Your task to perform on an android device: What's the weather today? Image 0: 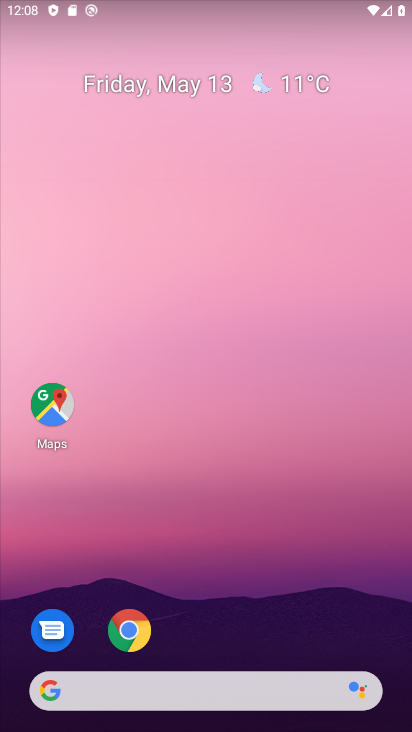
Step 0: press home button
Your task to perform on an android device: What's the weather today? Image 1: 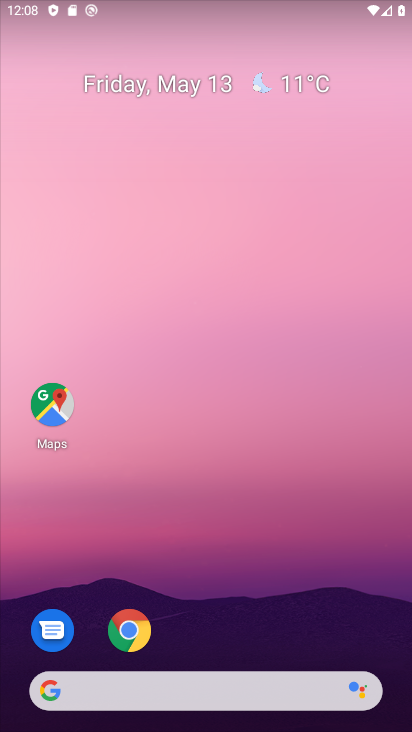
Step 1: click (157, 686)
Your task to perform on an android device: What's the weather today? Image 2: 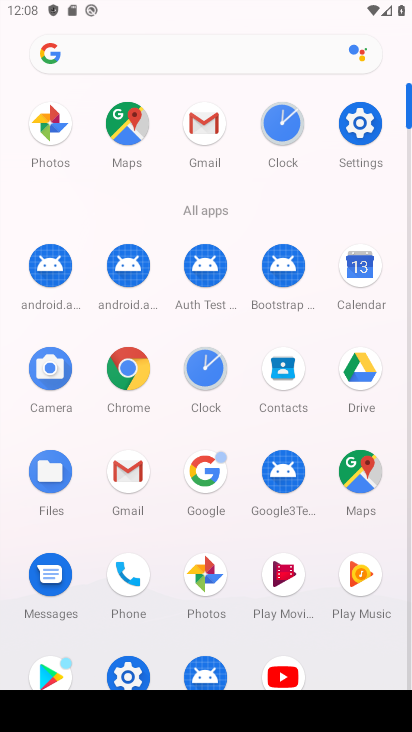
Step 2: press home button
Your task to perform on an android device: What's the weather today? Image 3: 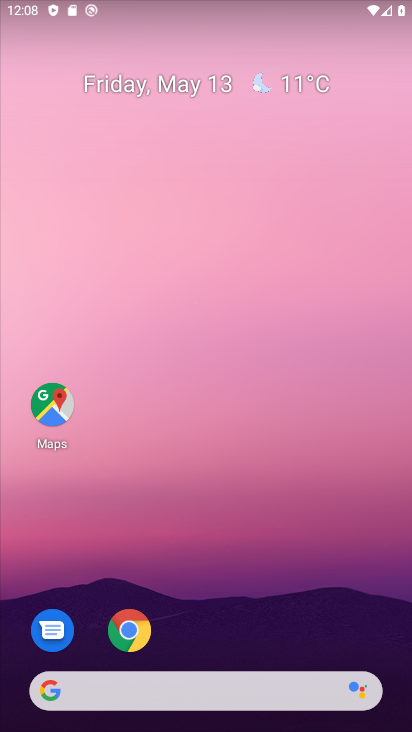
Step 3: click (161, 683)
Your task to perform on an android device: What's the weather today? Image 4: 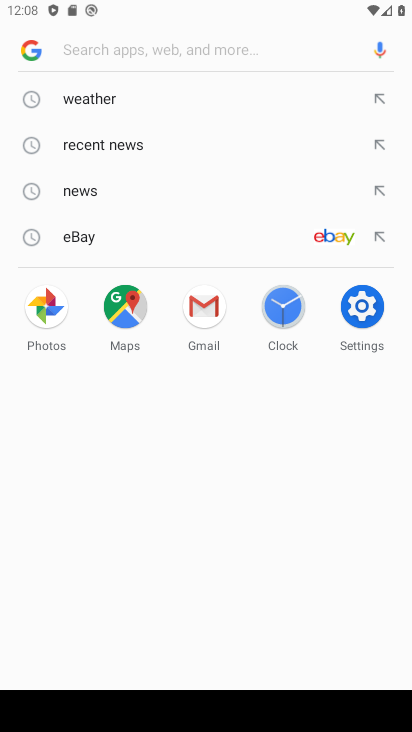
Step 4: click (91, 105)
Your task to perform on an android device: What's the weather today? Image 5: 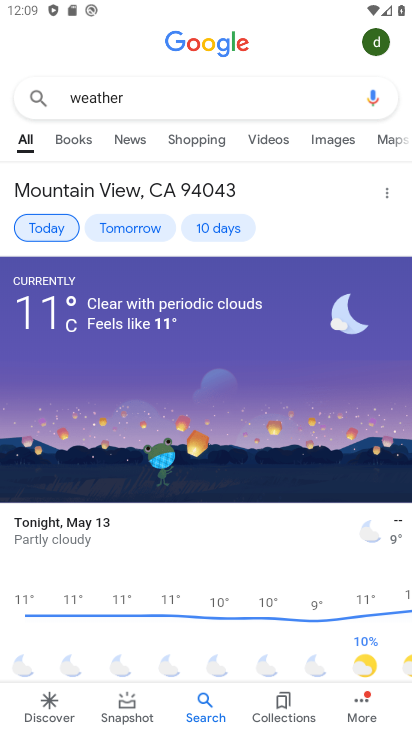
Step 5: task complete